Your task to perform on an android device: Open Yahoo.com Image 0: 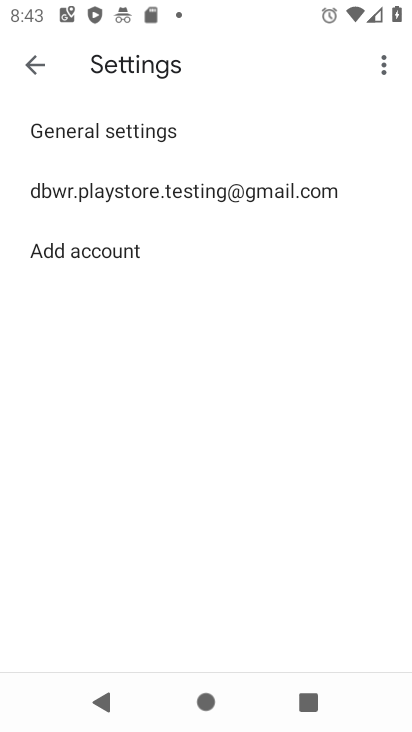
Step 0: press home button
Your task to perform on an android device: Open Yahoo.com Image 1: 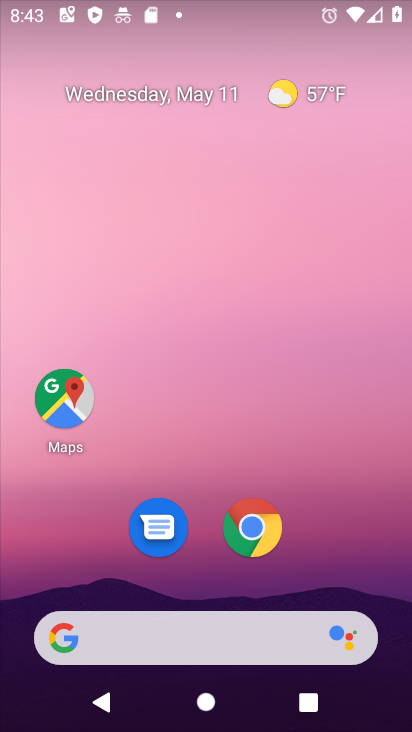
Step 1: click (254, 522)
Your task to perform on an android device: Open Yahoo.com Image 2: 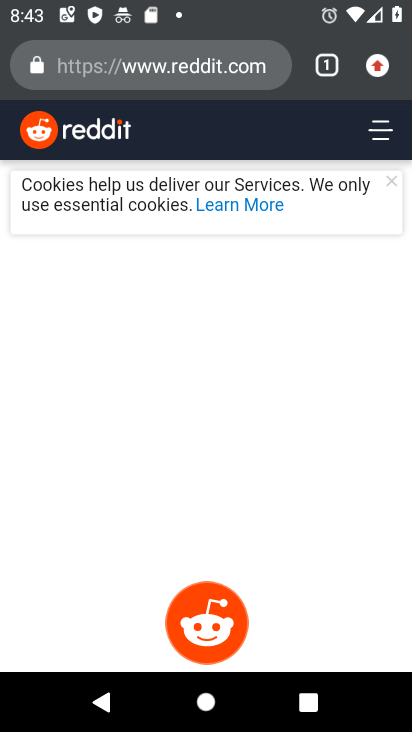
Step 2: click (140, 71)
Your task to perform on an android device: Open Yahoo.com Image 3: 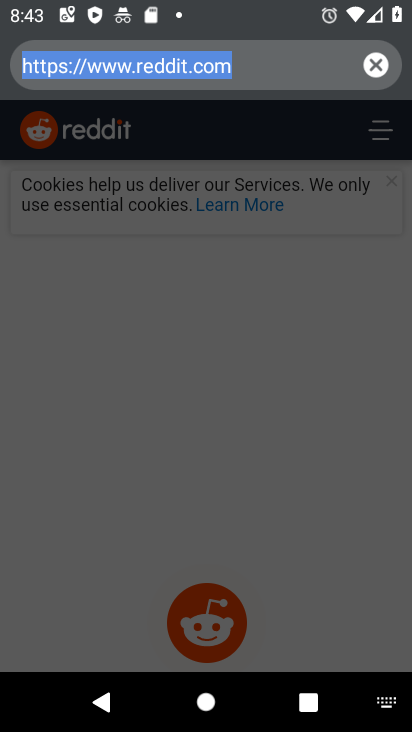
Step 3: click (371, 60)
Your task to perform on an android device: Open Yahoo.com Image 4: 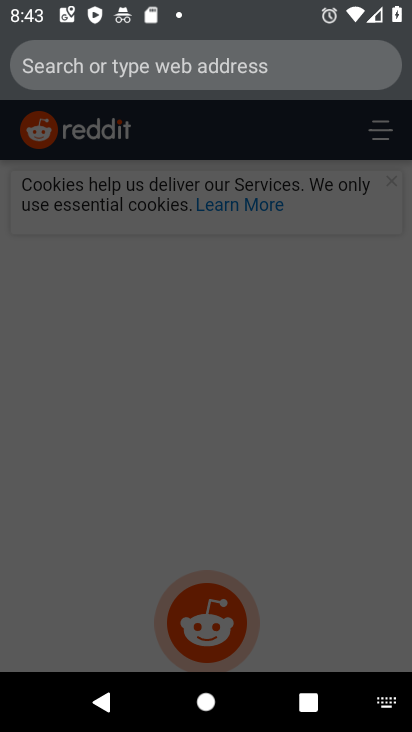
Step 4: type "yahoo.com"
Your task to perform on an android device: Open Yahoo.com Image 5: 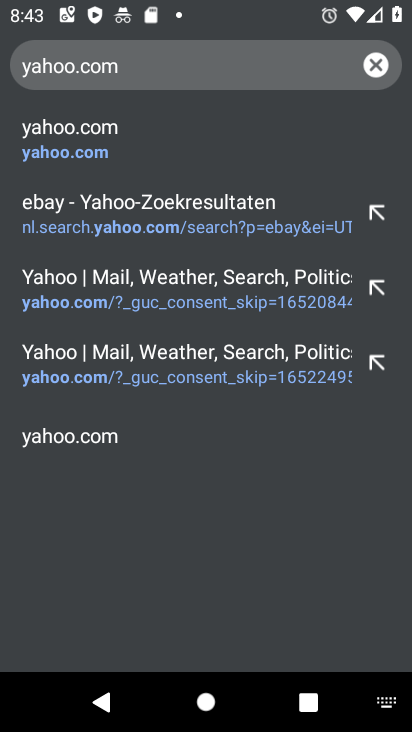
Step 5: click (69, 151)
Your task to perform on an android device: Open Yahoo.com Image 6: 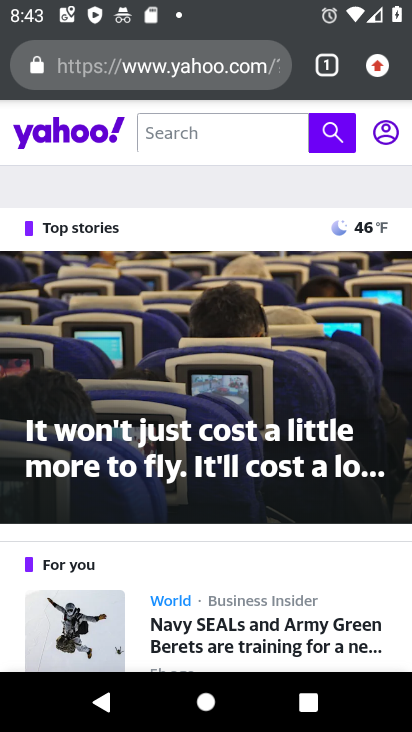
Step 6: task complete